Your task to perform on an android device: Go to network settings Image 0: 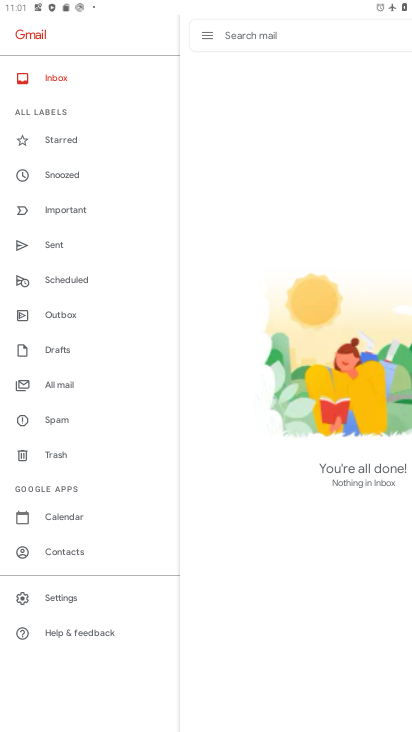
Step 0: press home button
Your task to perform on an android device: Go to network settings Image 1: 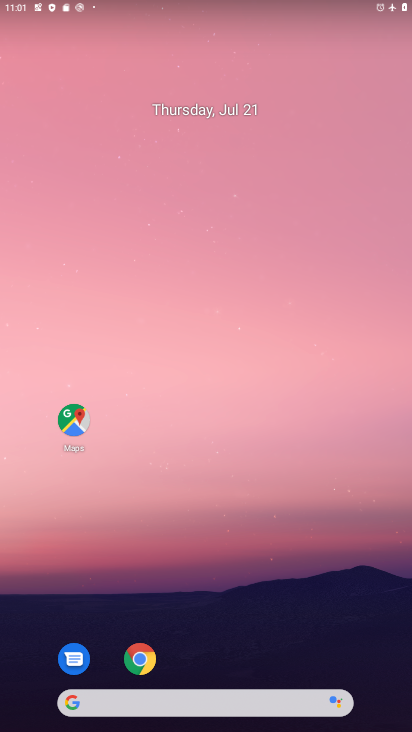
Step 1: task complete